Your task to perform on an android device: check google app version Image 0: 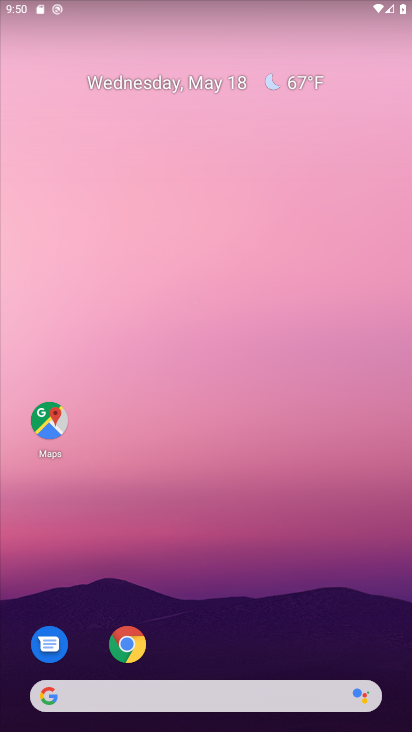
Step 0: drag from (227, 596) to (166, 146)
Your task to perform on an android device: check google app version Image 1: 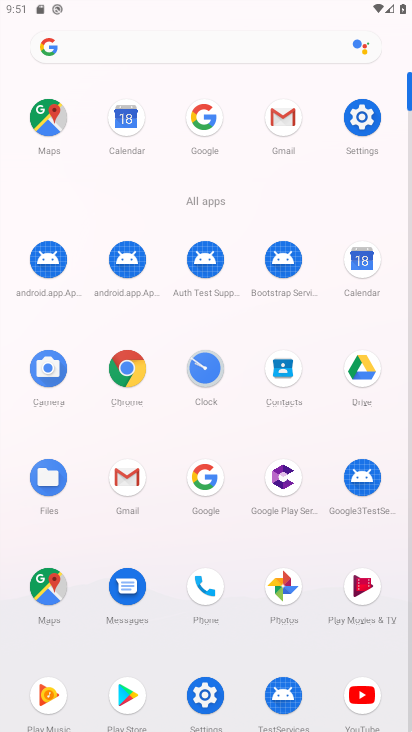
Step 1: click (201, 475)
Your task to perform on an android device: check google app version Image 2: 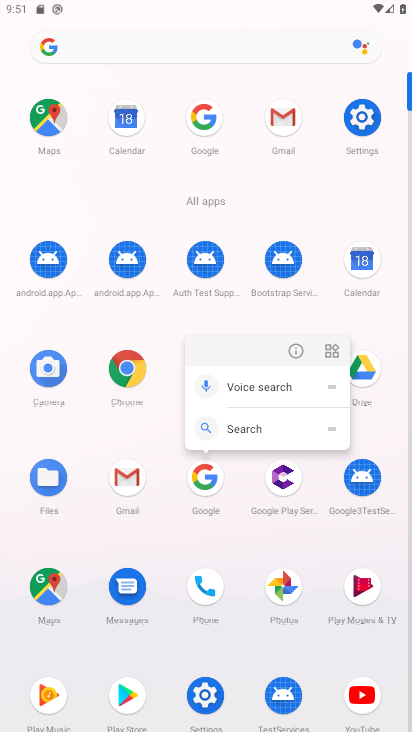
Step 2: click (294, 346)
Your task to perform on an android device: check google app version Image 3: 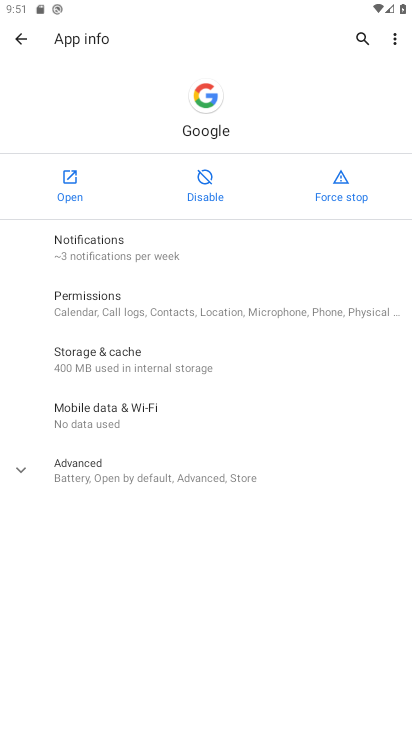
Step 3: click (104, 482)
Your task to perform on an android device: check google app version Image 4: 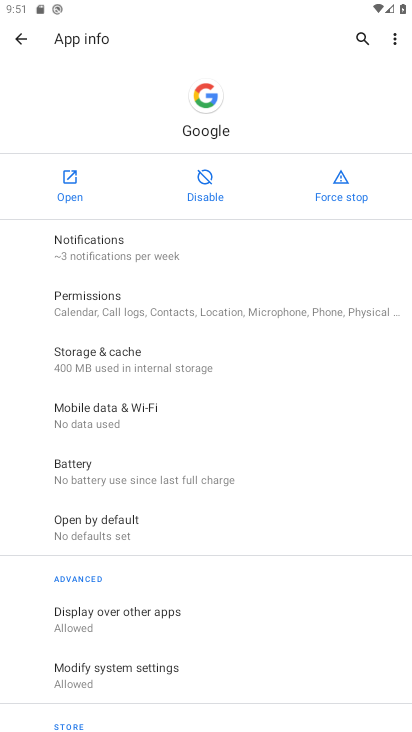
Step 4: task complete